Your task to perform on an android device: Open accessibility settings Image 0: 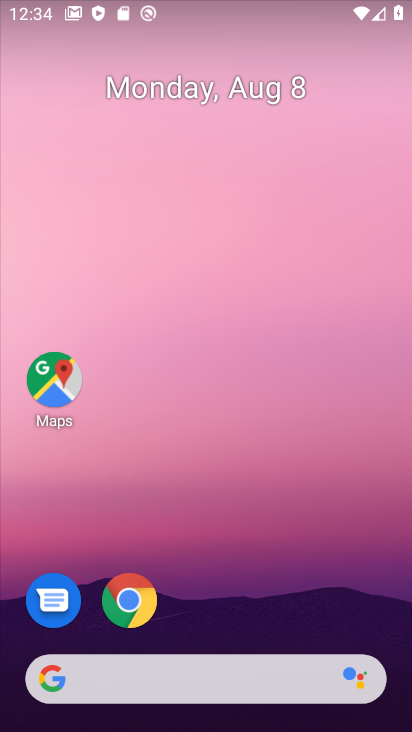
Step 0: click (147, 605)
Your task to perform on an android device: Open accessibility settings Image 1: 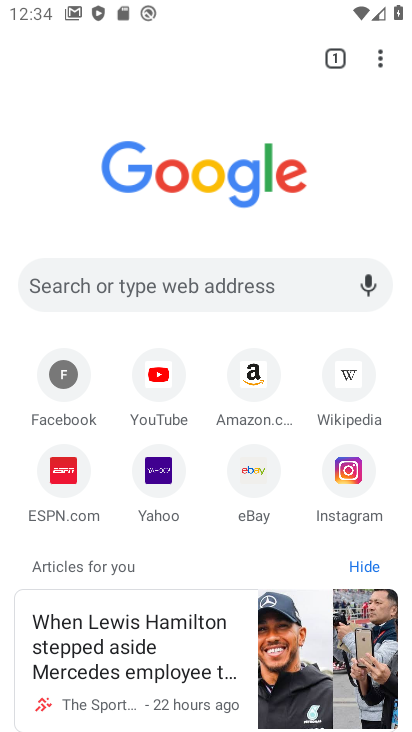
Step 1: press home button
Your task to perform on an android device: Open accessibility settings Image 2: 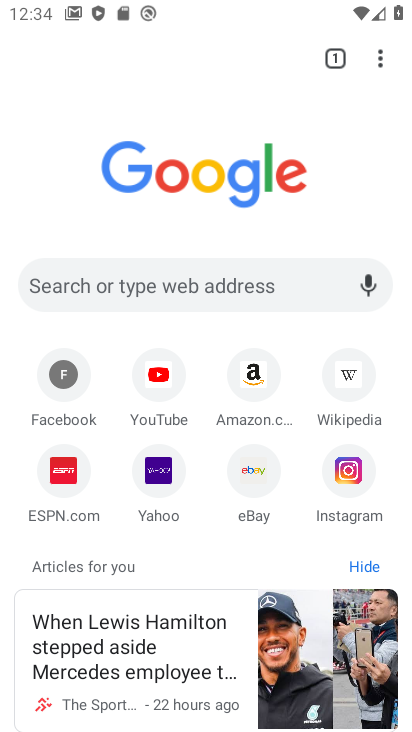
Step 2: press home button
Your task to perform on an android device: Open accessibility settings Image 3: 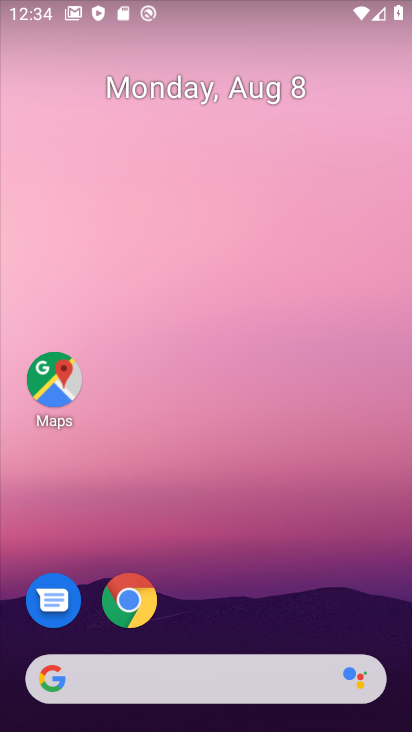
Step 3: drag from (291, 551) to (285, 88)
Your task to perform on an android device: Open accessibility settings Image 4: 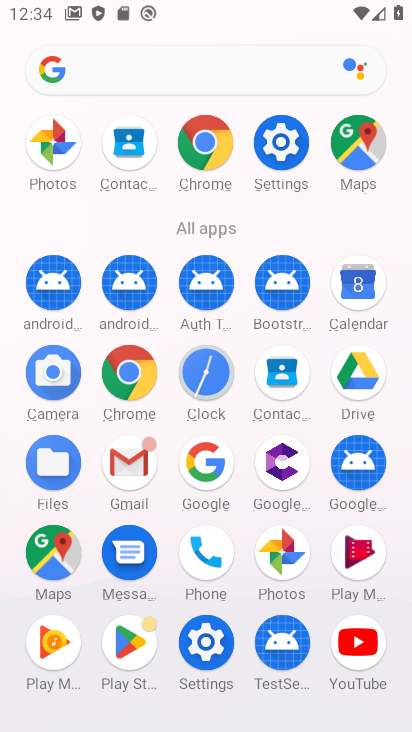
Step 4: click (281, 166)
Your task to perform on an android device: Open accessibility settings Image 5: 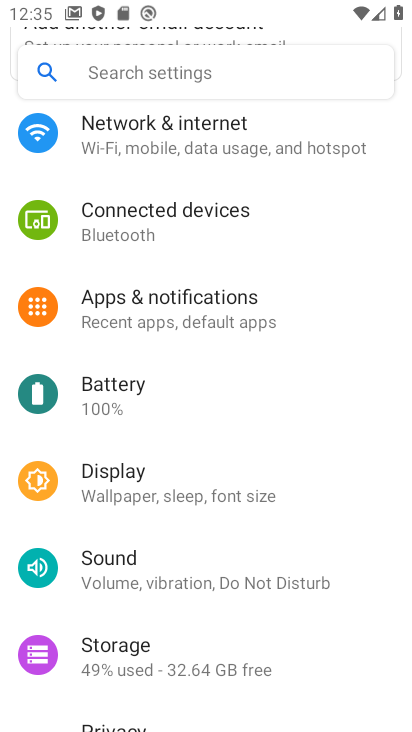
Step 5: drag from (138, 623) to (115, 267)
Your task to perform on an android device: Open accessibility settings Image 6: 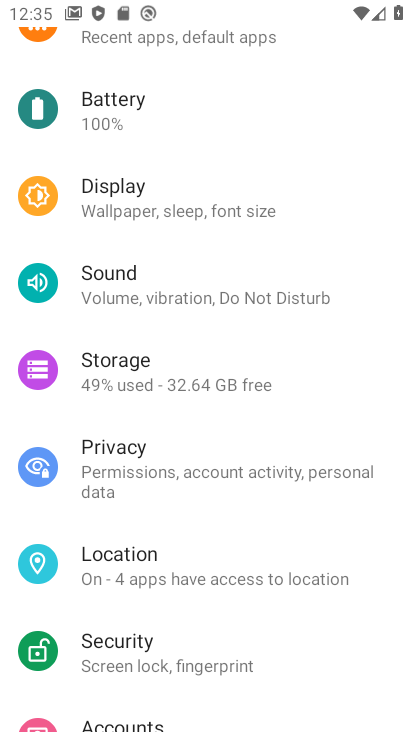
Step 6: drag from (261, 640) to (202, 138)
Your task to perform on an android device: Open accessibility settings Image 7: 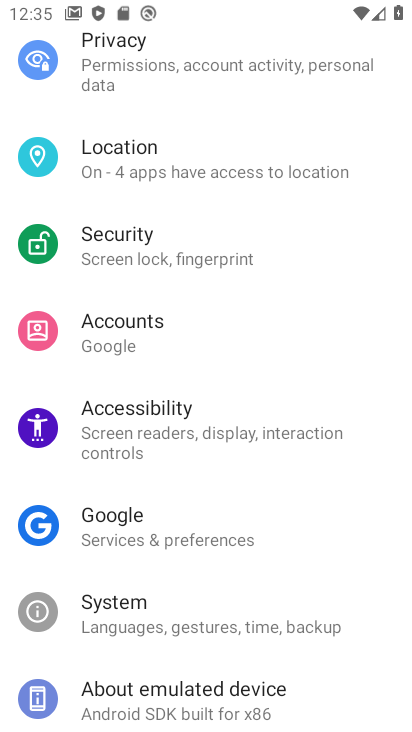
Step 7: click (159, 413)
Your task to perform on an android device: Open accessibility settings Image 8: 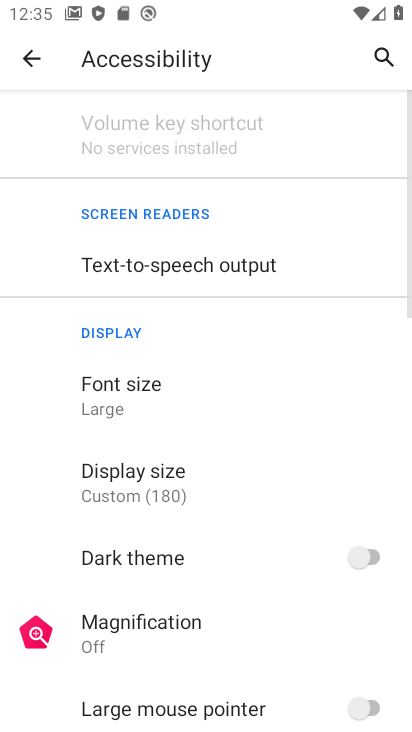
Step 8: task complete